Your task to perform on an android device: Do I have any events tomorrow? Image 0: 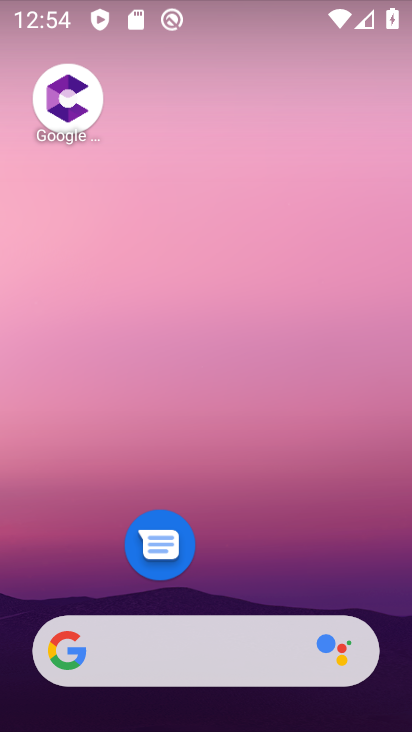
Step 0: drag from (102, 397) to (390, 533)
Your task to perform on an android device: Do I have any events tomorrow? Image 1: 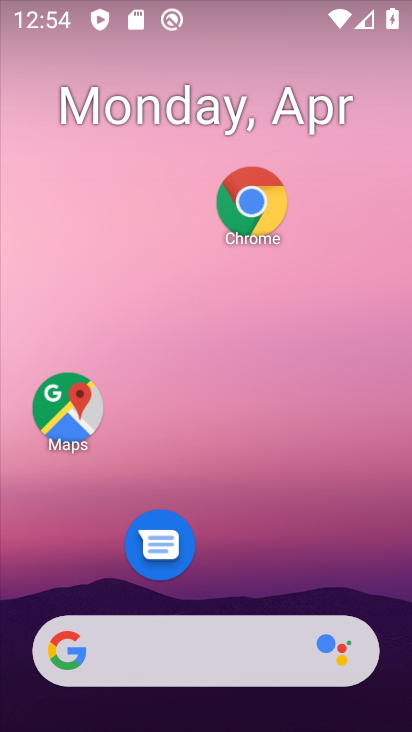
Step 1: click (262, 91)
Your task to perform on an android device: Do I have any events tomorrow? Image 2: 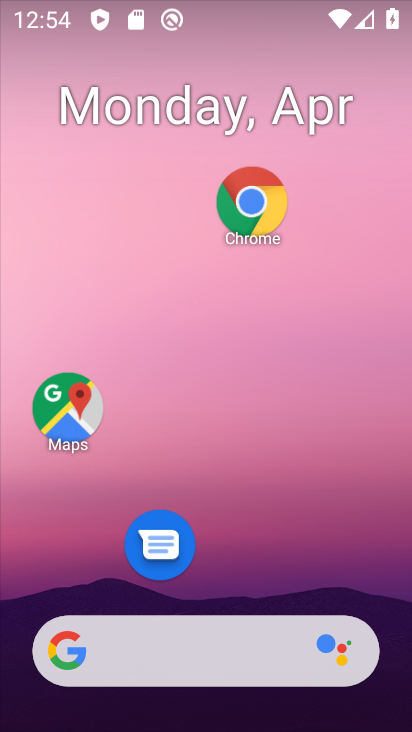
Step 2: click (184, 104)
Your task to perform on an android device: Do I have any events tomorrow? Image 3: 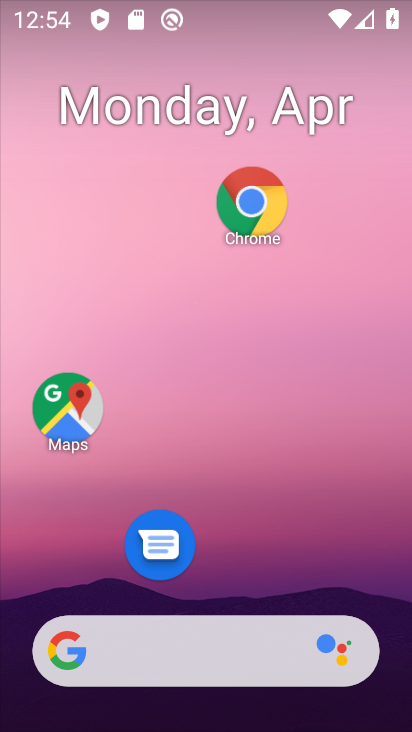
Step 3: click (182, 90)
Your task to perform on an android device: Do I have any events tomorrow? Image 4: 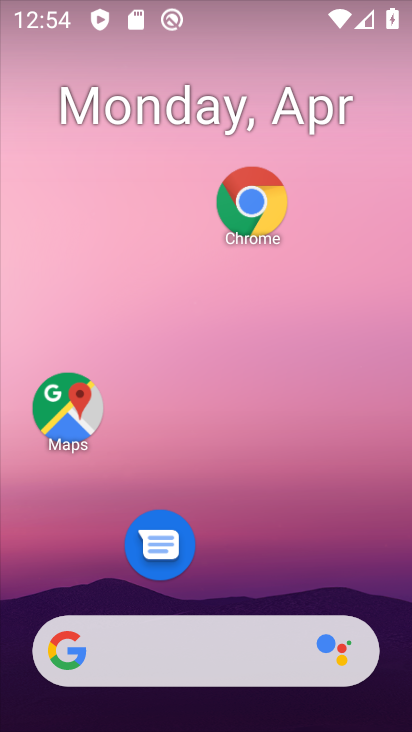
Step 4: click (172, 124)
Your task to perform on an android device: Do I have any events tomorrow? Image 5: 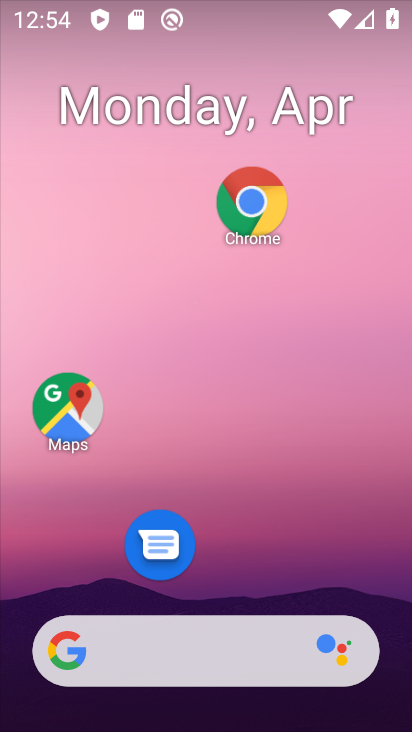
Step 5: click (172, 124)
Your task to perform on an android device: Do I have any events tomorrow? Image 6: 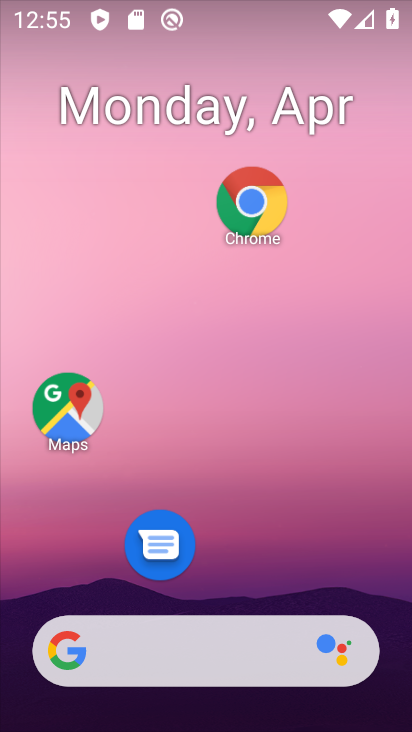
Step 6: click (160, 104)
Your task to perform on an android device: Do I have any events tomorrow? Image 7: 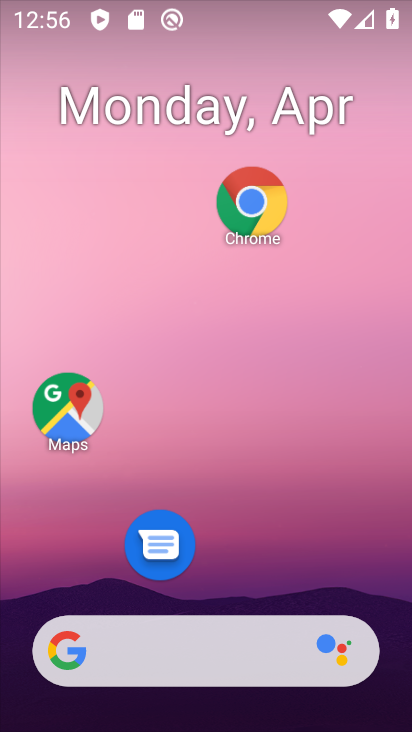
Step 7: drag from (232, 550) to (263, 154)
Your task to perform on an android device: Do I have any events tomorrow? Image 8: 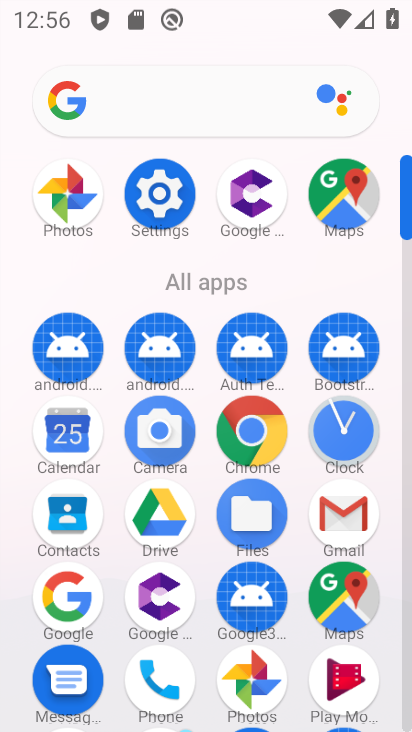
Step 8: click (63, 427)
Your task to perform on an android device: Do I have any events tomorrow? Image 9: 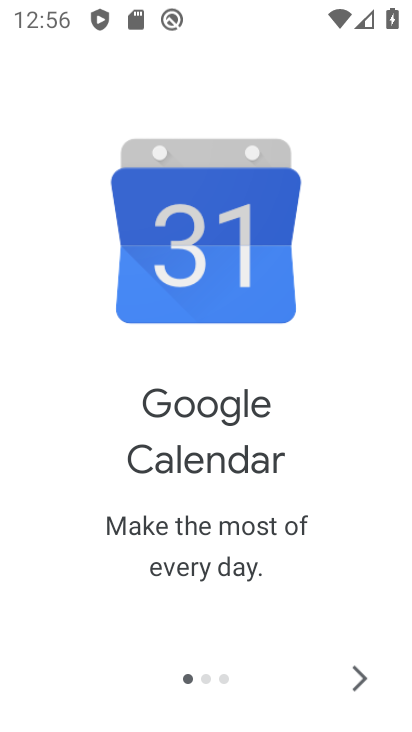
Step 9: click (359, 674)
Your task to perform on an android device: Do I have any events tomorrow? Image 10: 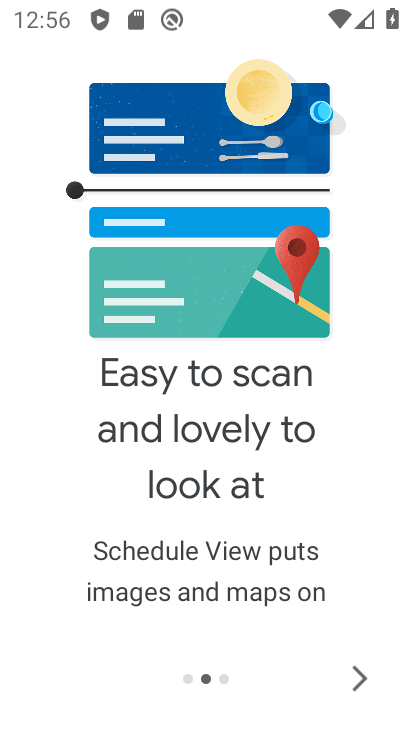
Step 10: click (351, 680)
Your task to perform on an android device: Do I have any events tomorrow? Image 11: 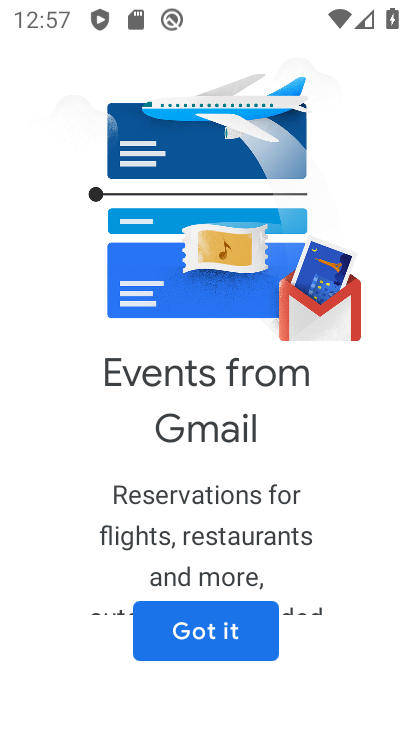
Step 11: click (252, 643)
Your task to perform on an android device: Do I have any events tomorrow? Image 12: 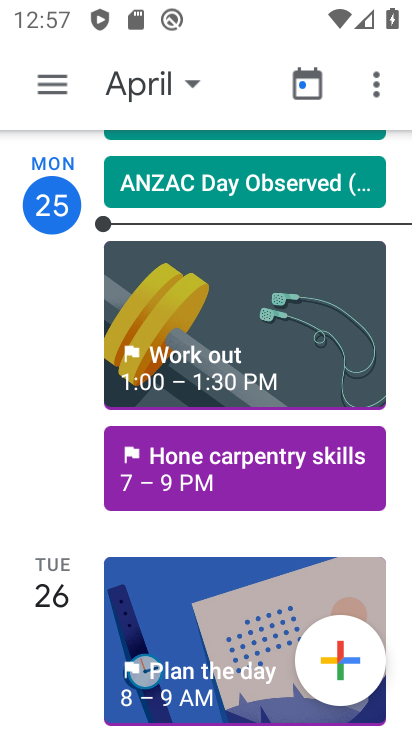
Step 12: drag from (75, 638) to (122, 164)
Your task to perform on an android device: Do I have any events tomorrow? Image 13: 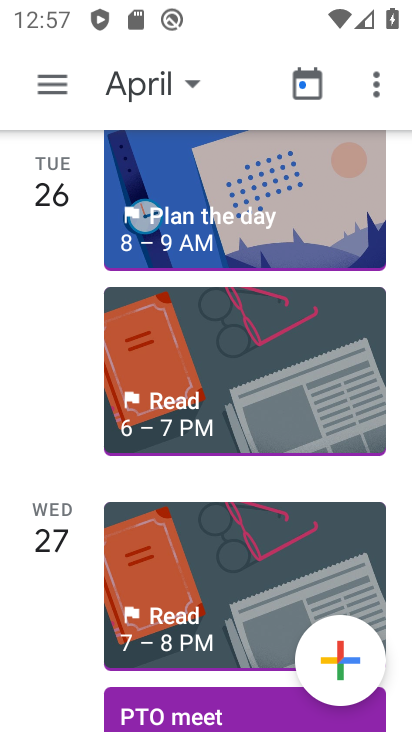
Step 13: click (137, 718)
Your task to perform on an android device: Do I have any events tomorrow? Image 14: 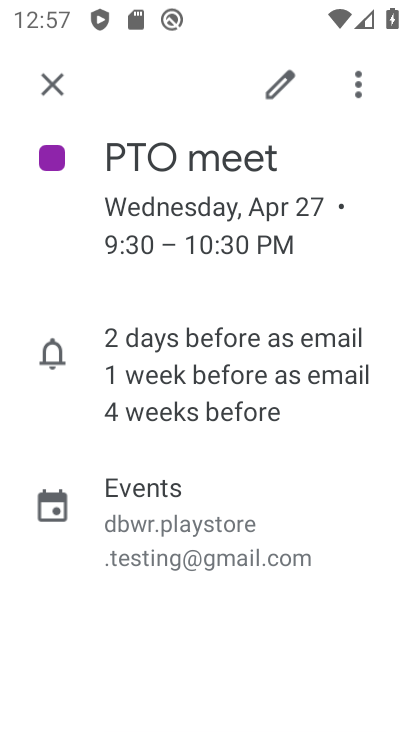
Step 14: task complete